Your task to perform on an android device: Open Wikipedia Image 0: 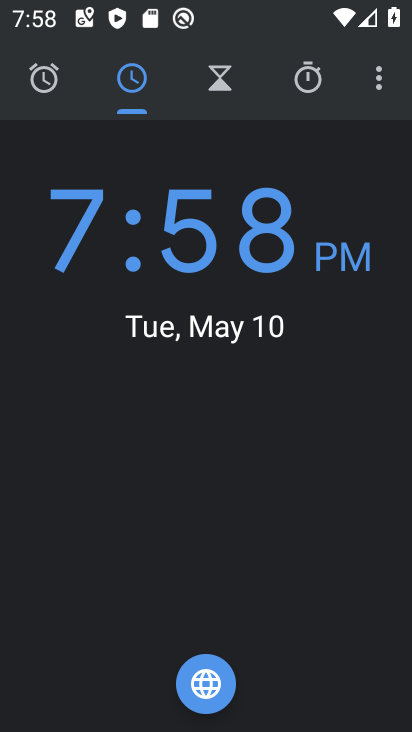
Step 0: press home button
Your task to perform on an android device: Open Wikipedia Image 1: 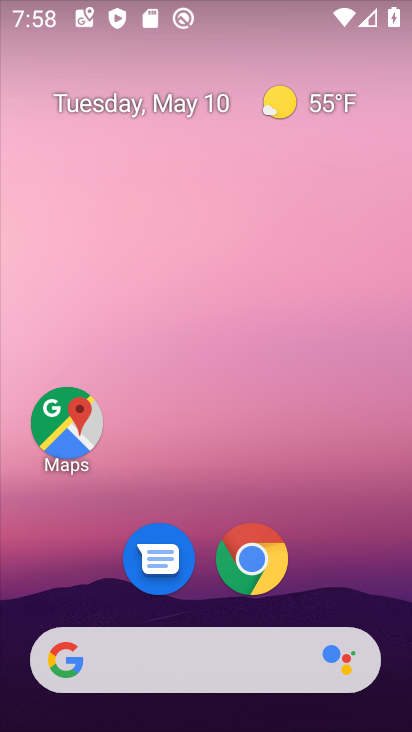
Step 1: click (251, 555)
Your task to perform on an android device: Open Wikipedia Image 2: 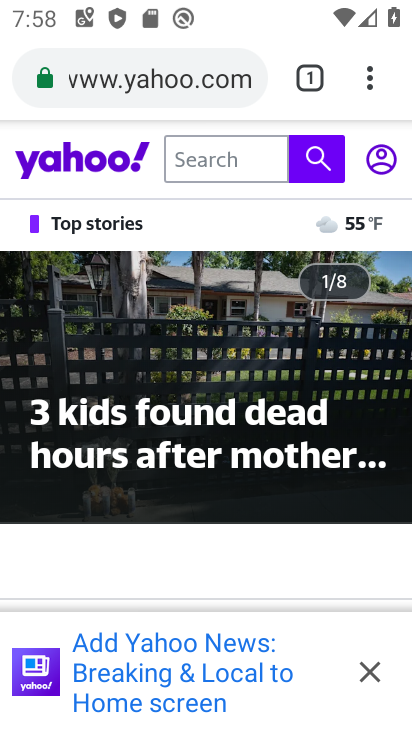
Step 2: click (370, 83)
Your task to perform on an android device: Open Wikipedia Image 3: 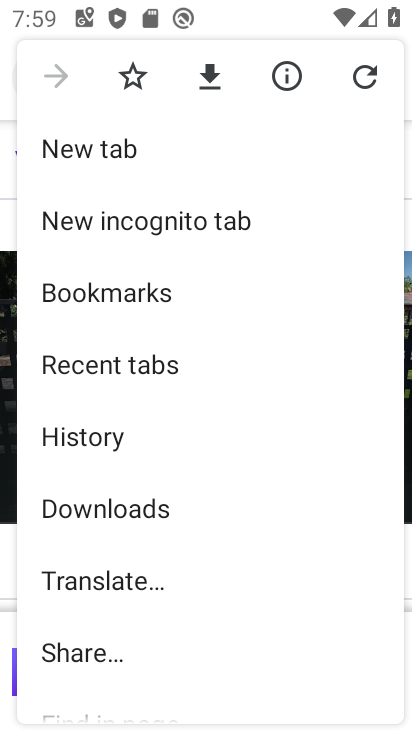
Step 3: click (99, 153)
Your task to perform on an android device: Open Wikipedia Image 4: 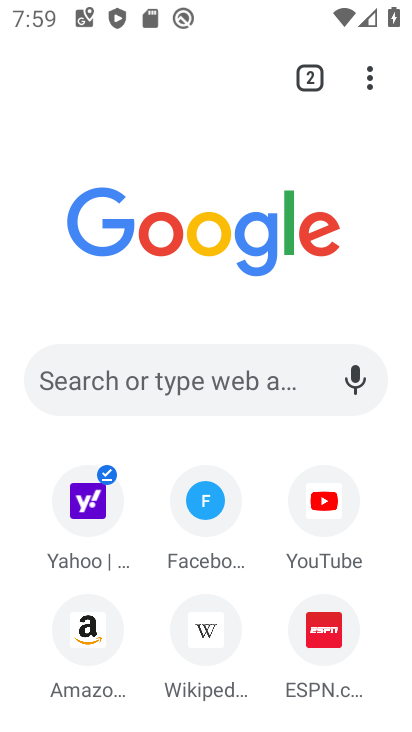
Step 4: click (210, 635)
Your task to perform on an android device: Open Wikipedia Image 5: 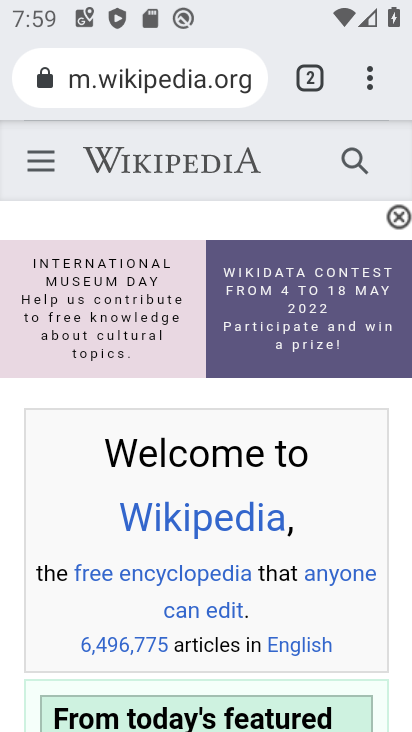
Step 5: task complete